Your task to perform on an android device: toggle location history Image 0: 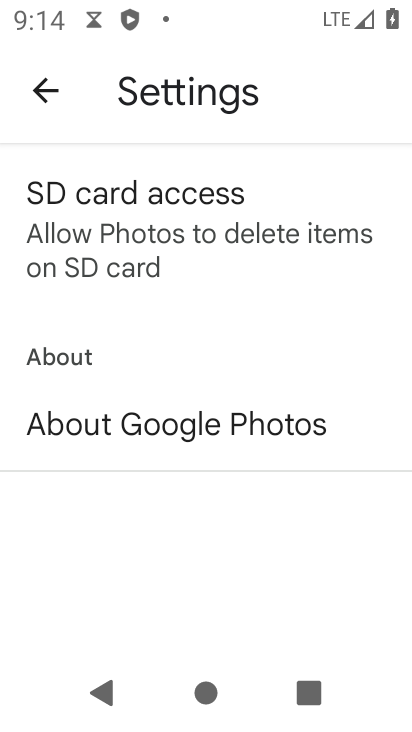
Step 0: press home button
Your task to perform on an android device: toggle location history Image 1: 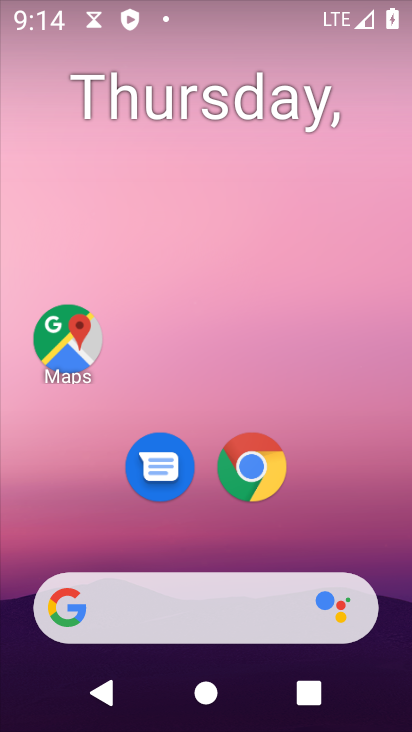
Step 1: drag from (307, 540) to (367, 59)
Your task to perform on an android device: toggle location history Image 2: 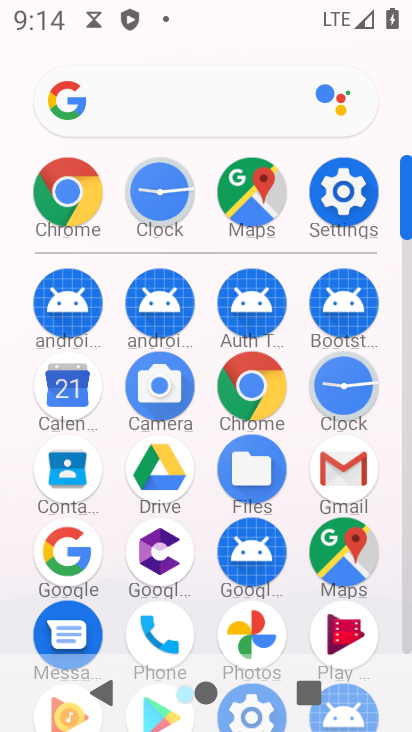
Step 2: click (325, 207)
Your task to perform on an android device: toggle location history Image 3: 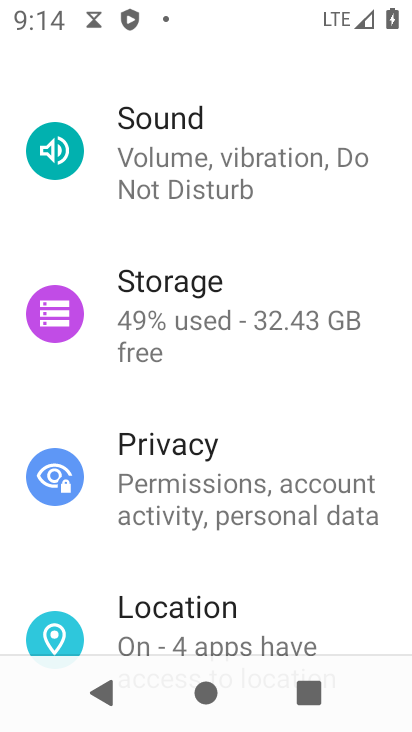
Step 3: click (209, 609)
Your task to perform on an android device: toggle location history Image 4: 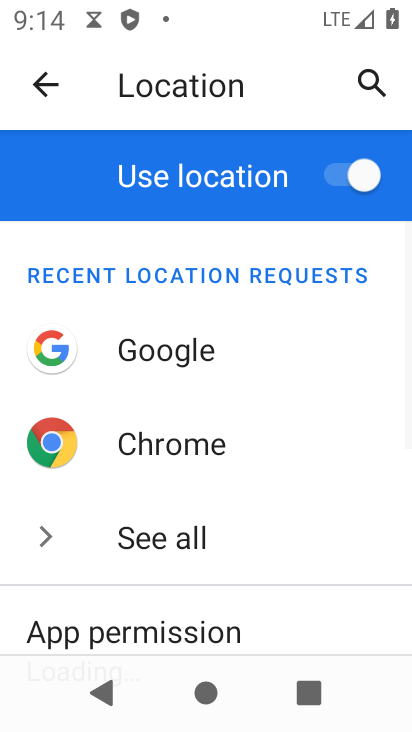
Step 4: drag from (207, 604) to (253, 474)
Your task to perform on an android device: toggle location history Image 5: 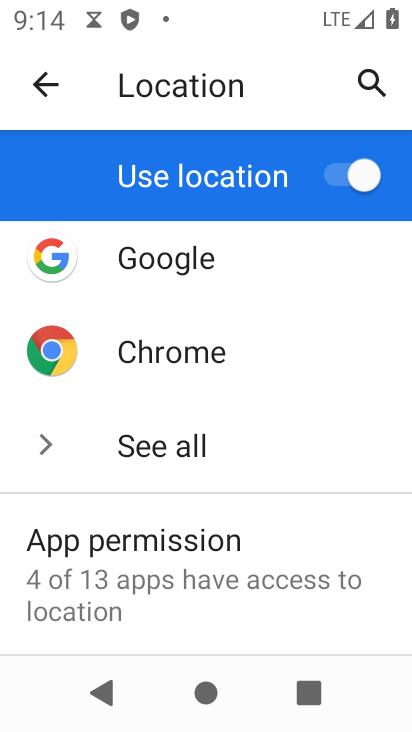
Step 5: drag from (216, 577) to (245, 453)
Your task to perform on an android device: toggle location history Image 6: 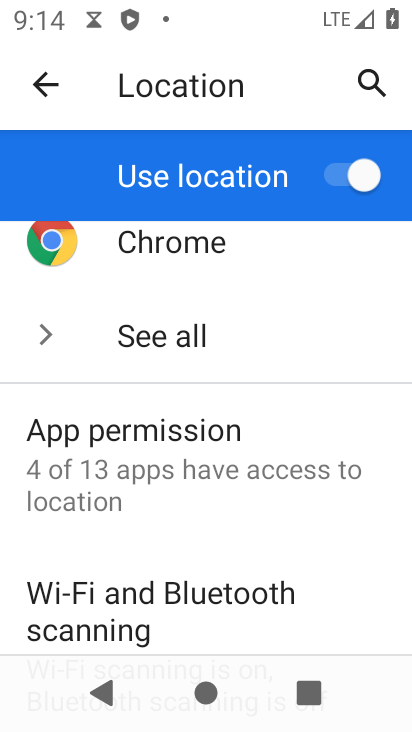
Step 6: drag from (218, 590) to (217, 484)
Your task to perform on an android device: toggle location history Image 7: 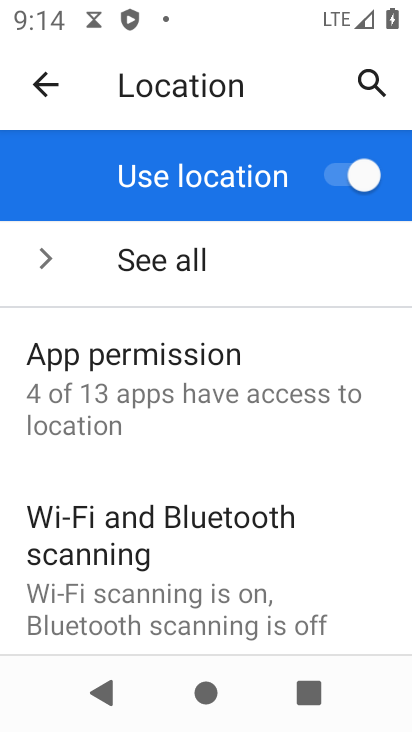
Step 7: drag from (203, 595) to (211, 496)
Your task to perform on an android device: toggle location history Image 8: 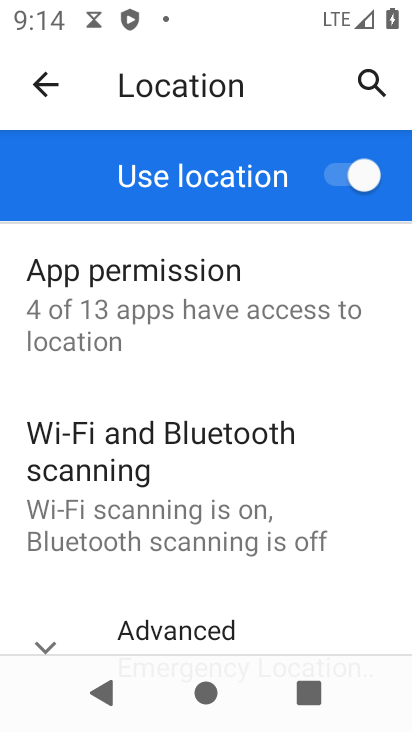
Step 8: drag from (186, 584) to (190, 506)
Your task to perform on an android device: toggle location history Image 9: 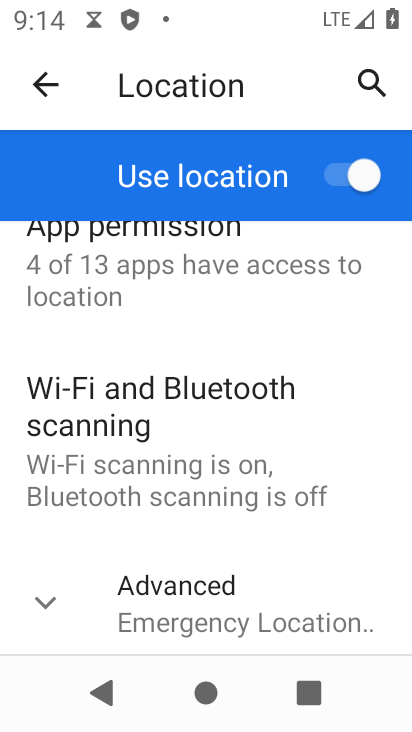
Step 9: drag from (186, 580) to (190, 510)
Your task to perform on an android device: toggle location history Image 10: 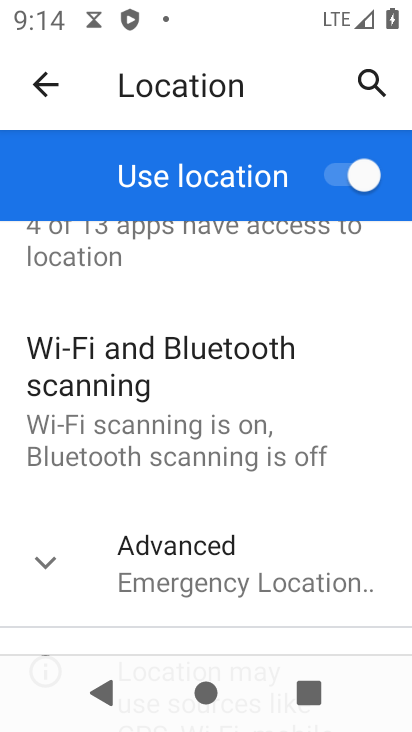
Step 10: click (184, 575)
Your task to perform on an android device: toggle location history Image 11: 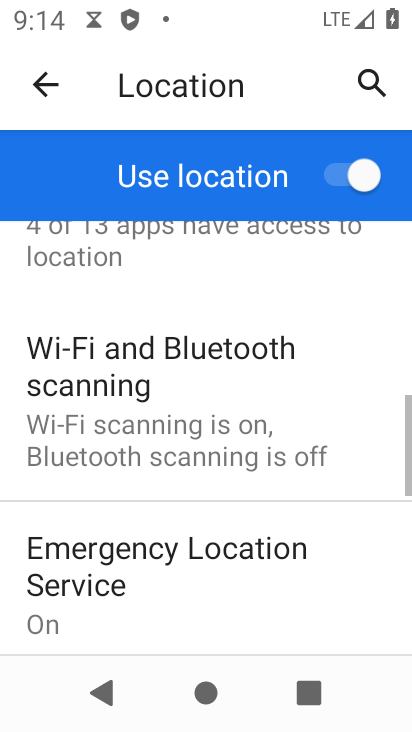
Step 11: drag from (185, 578) to (209, 487)
Your task to perform on an android device: toggle location history Image 12: 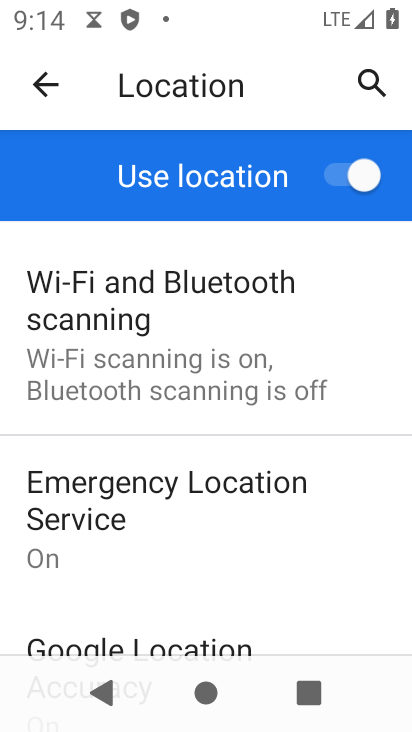
Step 12: drag from (207, 571) to (227, 484)
Your task to perform on an android device: toggle location history Image 13: 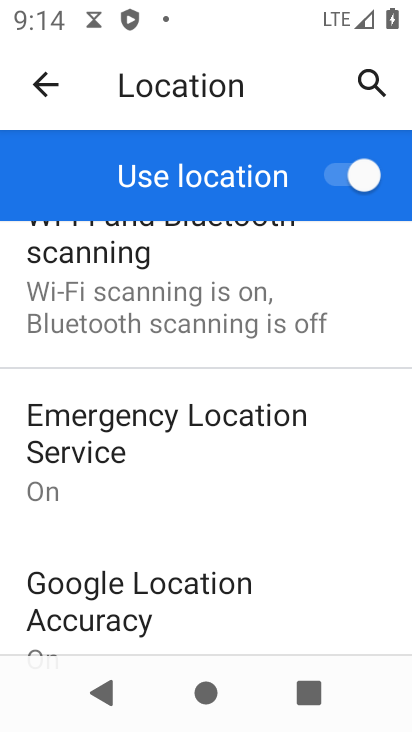
Step 13: drag from (205, 572) to (226, 491)
Your task to perform on an android device: toggle location history Image 14: 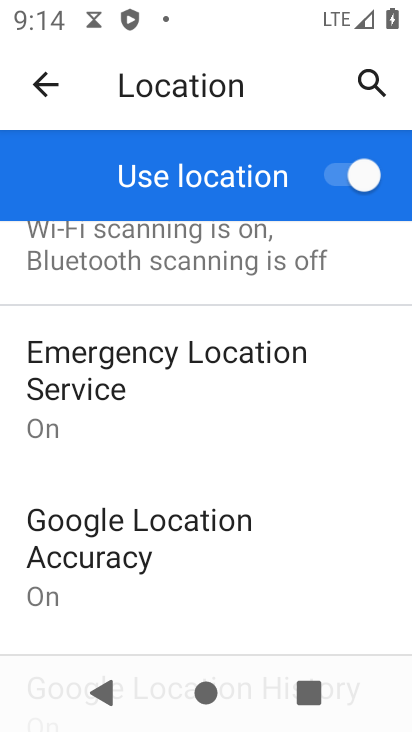
Step 14: drag from (204, 574) to (222, 489)
Your task to perform on an android device: toggle location history Image 15: 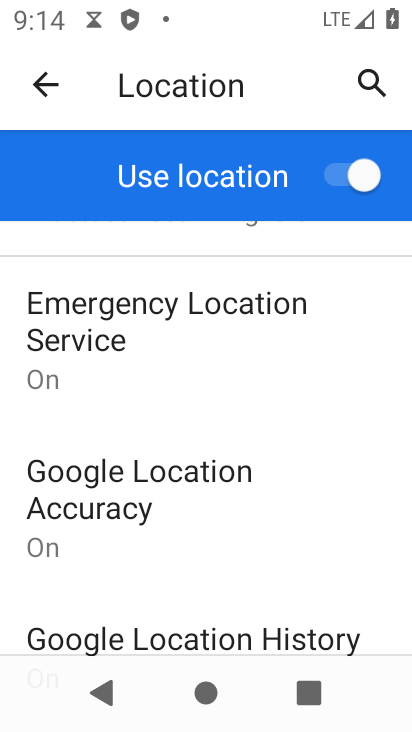
Step 15: drag from (223, 567) to (242, 480)
Your task to perform on an android device: toggle location history Image 16: 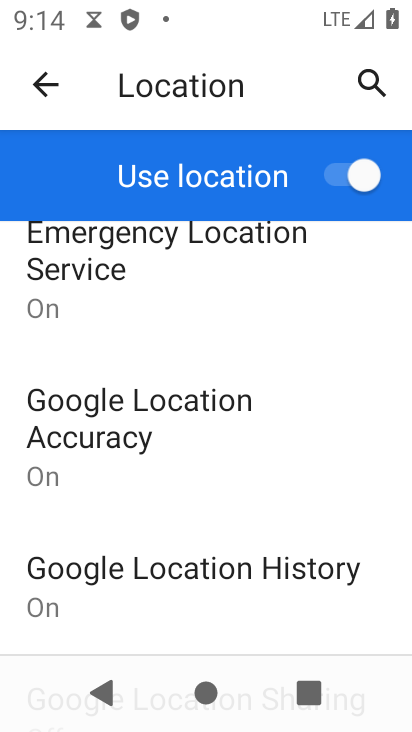
Step 16: drag from (125, 606) to (186, 438)
Your task to perform on an android device: toggle location history Image 17: 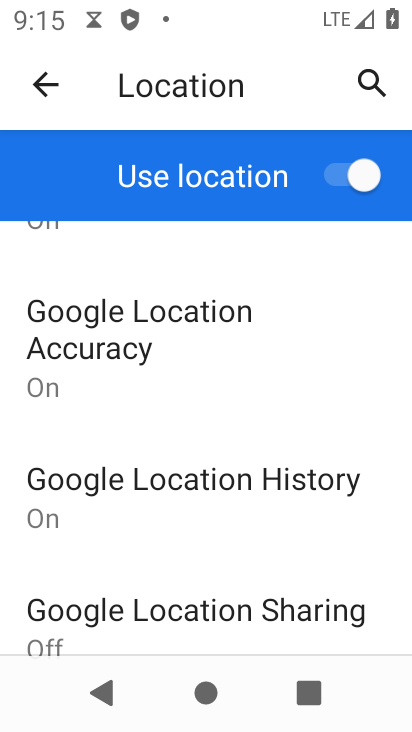
Step 17: click (172, 478)
Your task to perform on an android device: toggle location history Image 18: 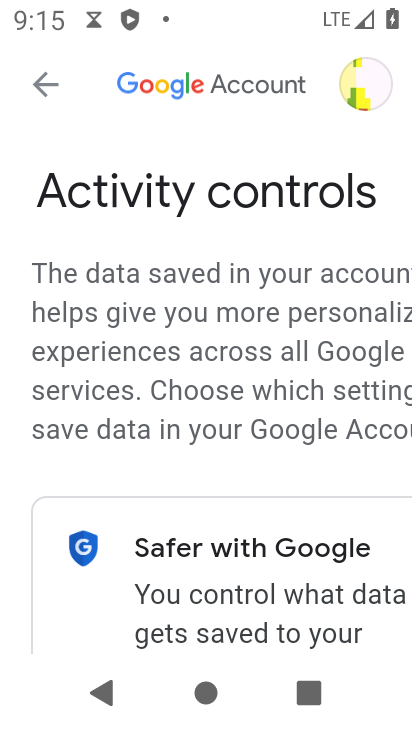
Step 18: drag from (180, 554) to (209, 450)
Your task to perform on an android device: toggle location history Image 19: 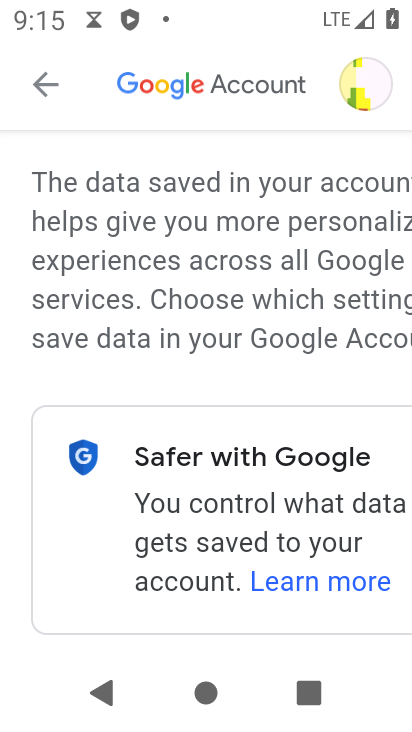
Step 19: drag from (180, 550) to (210, 422)
Your task to perform on an android device: toggle location history Image 20: 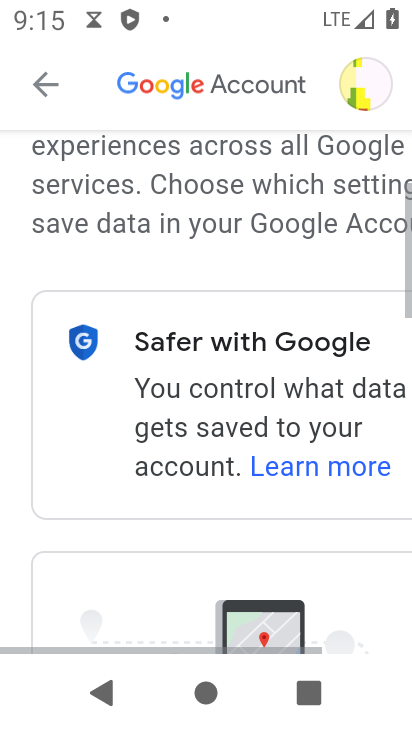
Step 20: drag from (173, 567) to (226, 388)
Your task to perform on an android device: toggle location history Image 21: 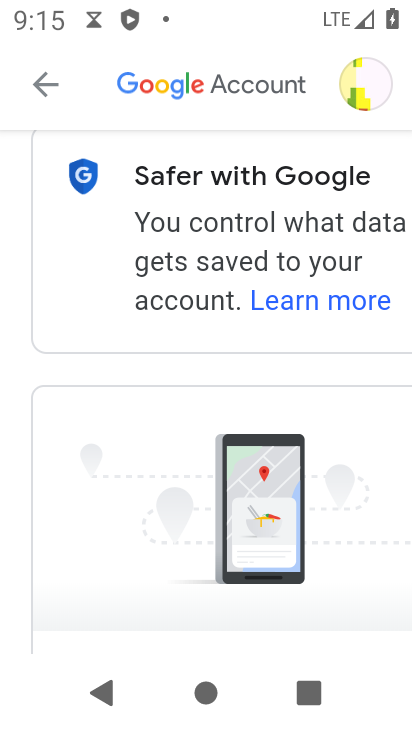
Step 21: drag from (165, 598) to (195, 465)
Your task to perform on an android device: toggle location history Image 22: 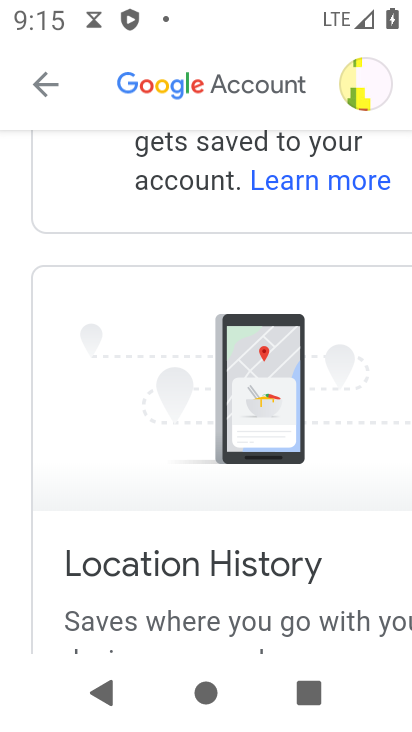
Step 22: drag from (176, 595) to (192, 507)
Your task to perform on an android device: toggle location history Image 23: 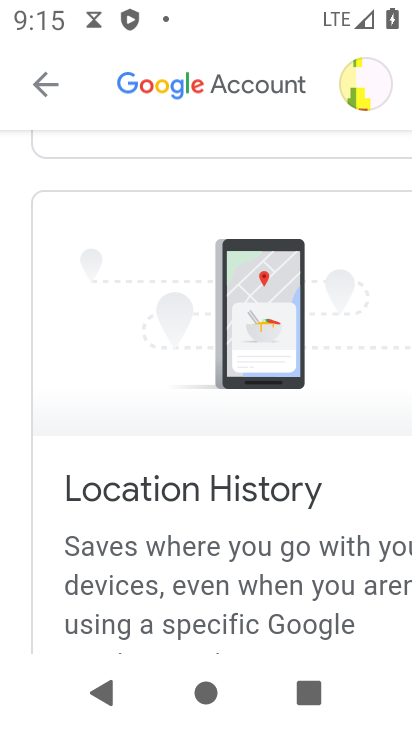
Step 23: drag from (172, 586) to (184, 481)
Your task to perform on an android device: toggle location history Image 24: 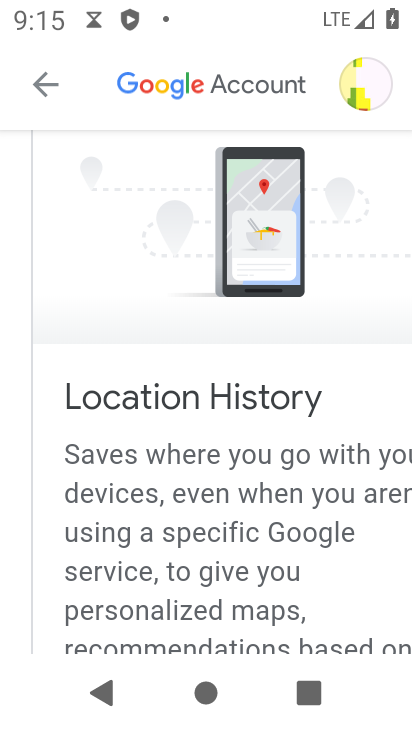
Step 24: drag from (175, 561) to (192, 478)
Your task to perform on an android device: toggle location history Image 25: 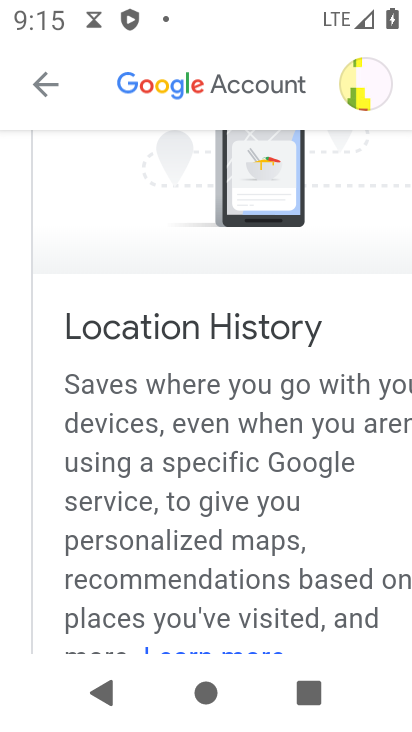
Step 25: drag from (180, 570) to (195, 481)
Your task to perform on an android device: toggle location history Image 26: 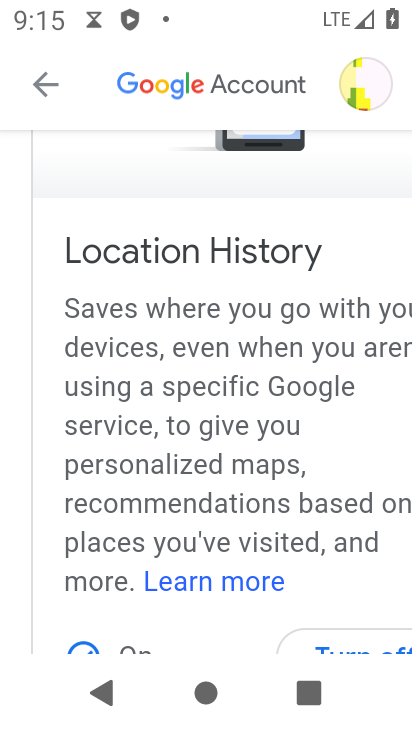
Step 26: drag from (181, 591) to (203, 482)
Your task to perform on an android device: toggle location history Image 27: 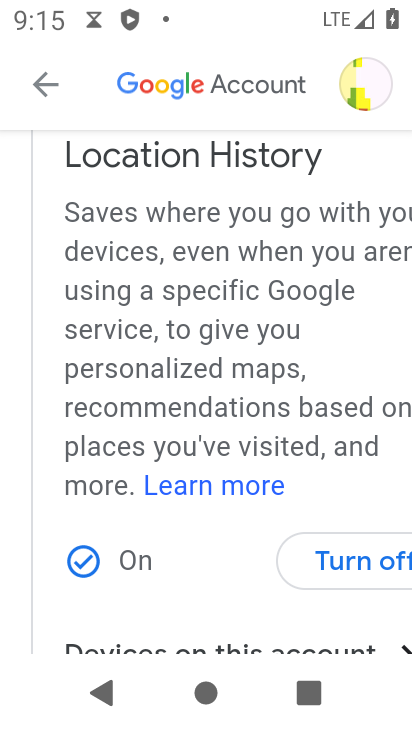
Step 27: click (326, 573)
Your task to perform on an android device: toggle location history Image 28: 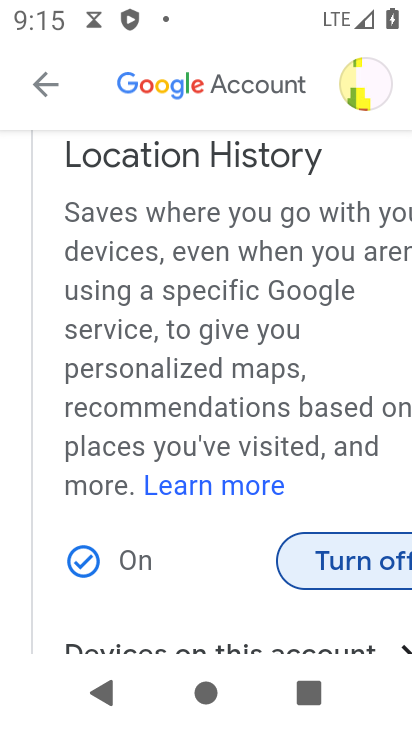
Step 28: click (331, 553)
Your task to perform on an android device: toggle location history Image 29: 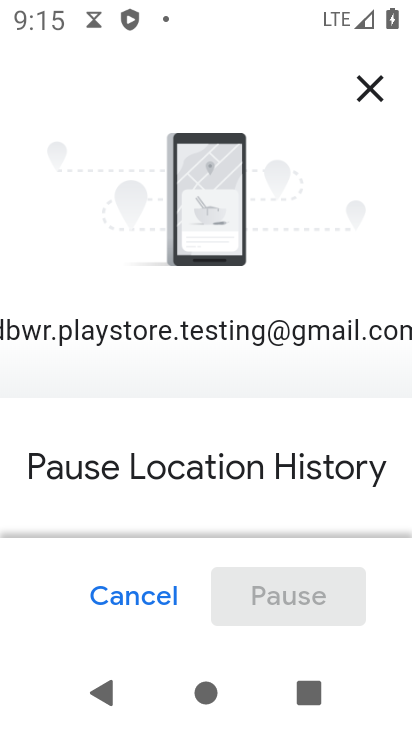
Step 29: drag from (244, 521) to (284, 110)
Your task to perform on an android device: toggle location history Image 30: 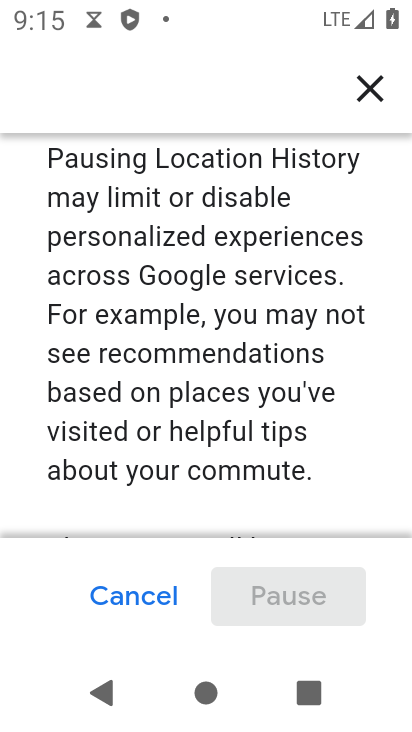
Step 30: drag from (247, 515) to (291, 232)
Your task to perform on an android device: toggle location history Image 31: 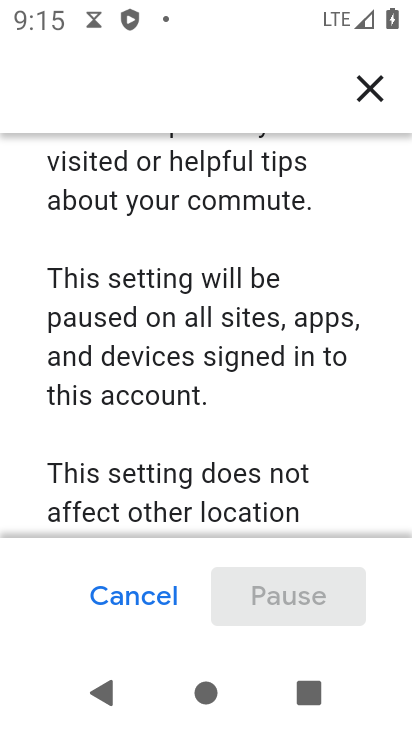
Step 31: drag from (253, 492) to (278, 283)
Your task to perform on an android device: toggle location history Image 32: 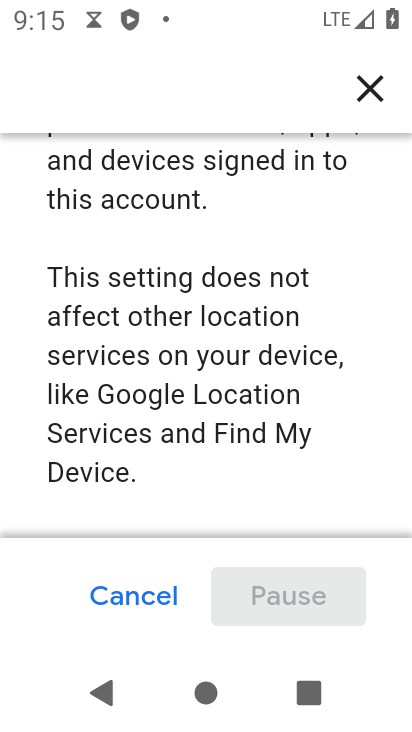
Step 32: drag from (261, 478) to (290, 317)
Your task to perform on an android device: toggle location history Image 33: 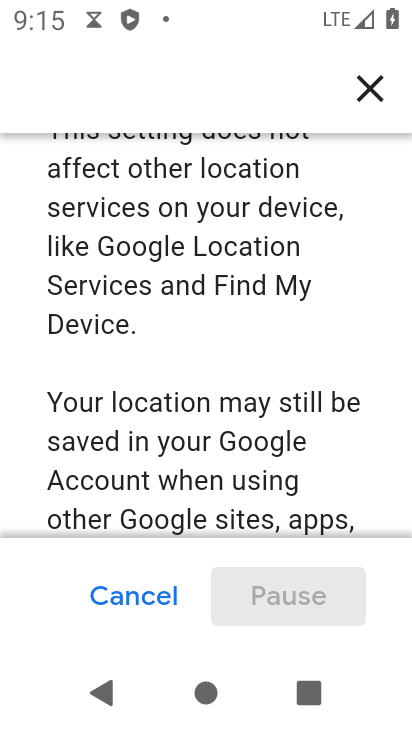
Step 33: drag from (278, 491) to (279, 268)
Your task to perform on an android device: toggle location history Image 34: 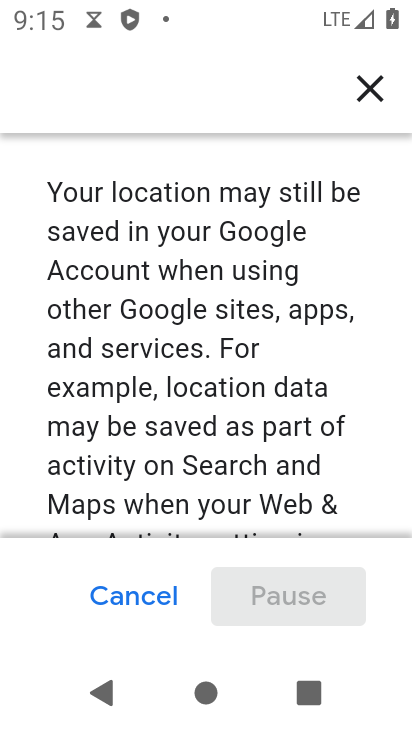
Step 34: drag from (210, 533) to (211, 370)
Your task to perform on an android device: toggle location history Image 35: 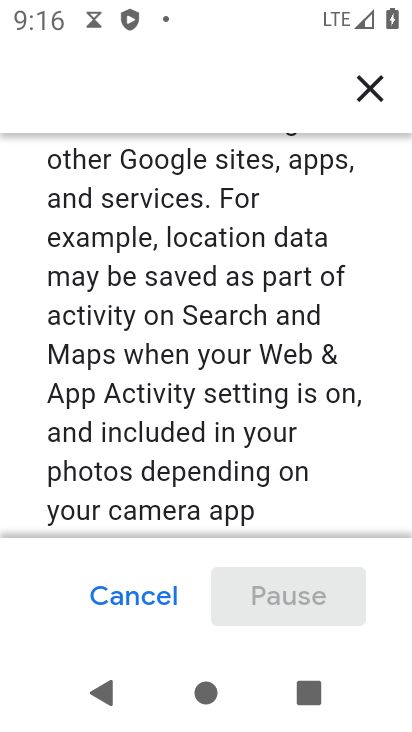
Step 35: drag from (140, 460) to (212, 124)
Your task to perform on an android device: toggle location history Image 36: 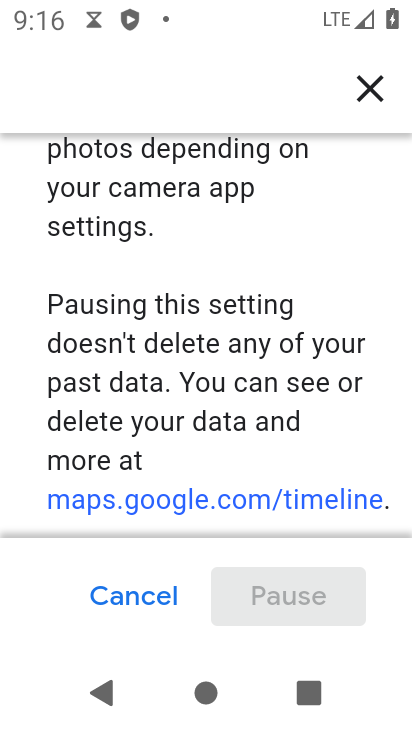
Step 36: drag from (214, 490) to (272, 265)
Your task to perform on an android device: toggle location history Image 37: 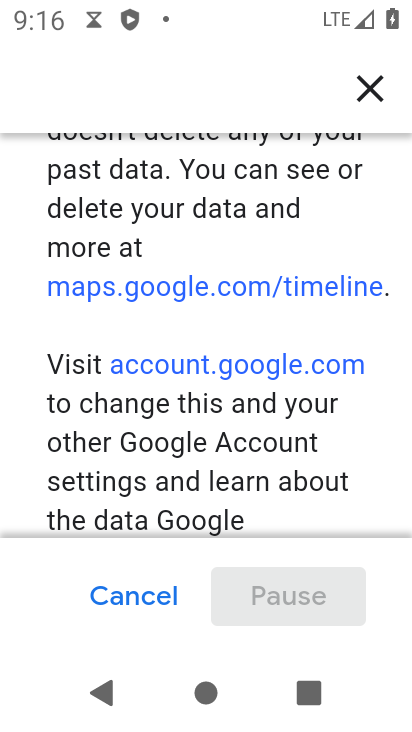
Step 37: drag from (242, 478) to (270, 287)
Your task to perform on an android device: toggle location history Image 38: 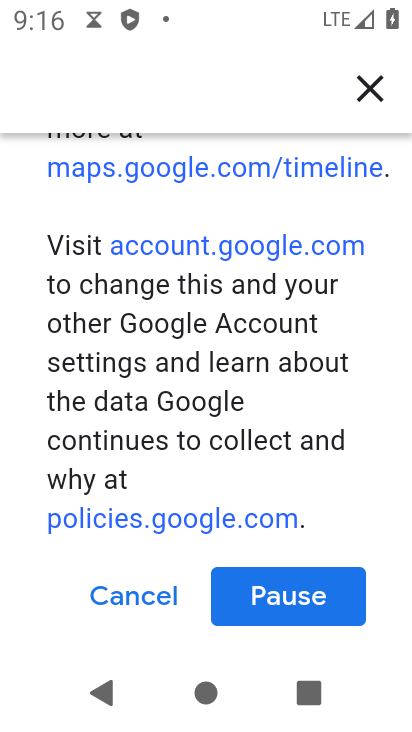
Step 38: click (274, 608)
Your task to perform on an android device: toggle location history Image 39: 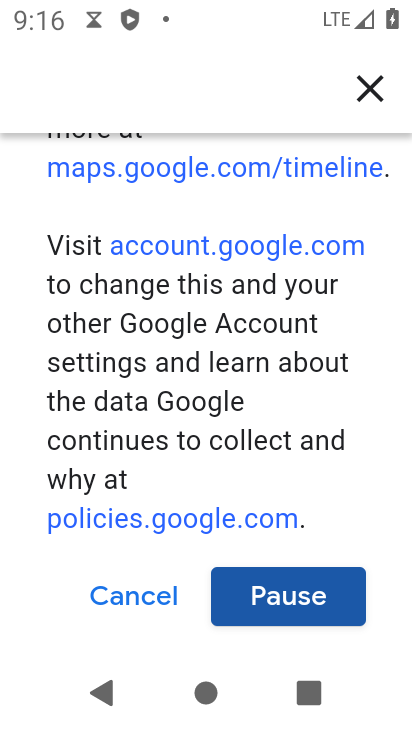
Step 39: click (274, 608)
Your task to perform on an android device: toggle location history Image 40: 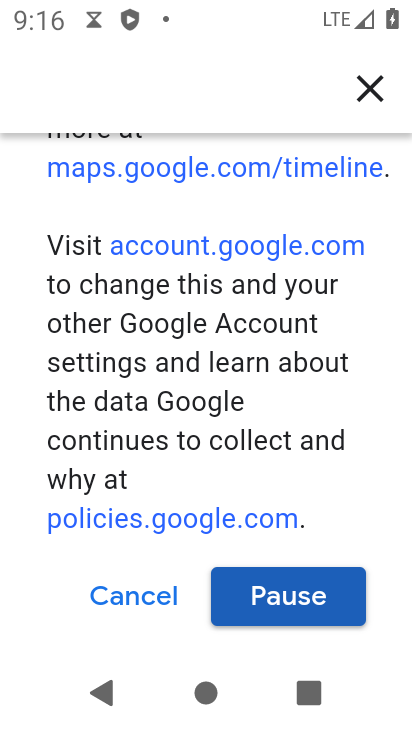
Step 40: click (281, 588)
Your task to perform on an android device: toggle location history Image 41: 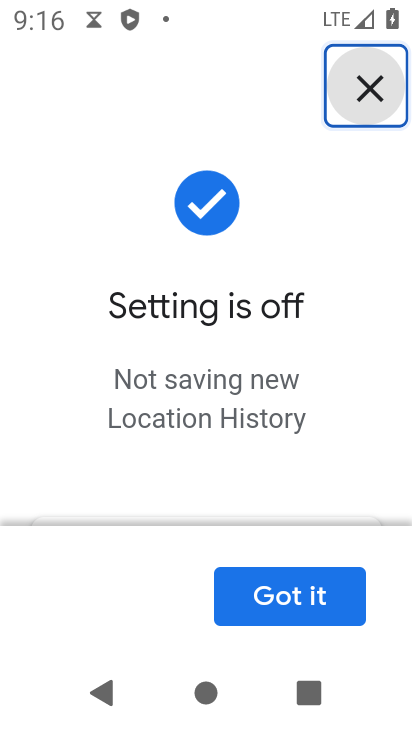
Step 41: click (282, 587)
Your task to perform on an android device: toggle location history Image 42: 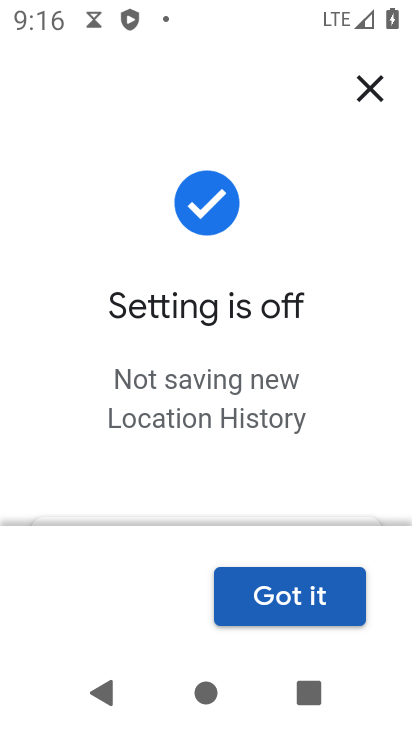
Step 42: task complete